Your task to perform on an android device: Open Google Maps and go to "Timeline" Image 0: 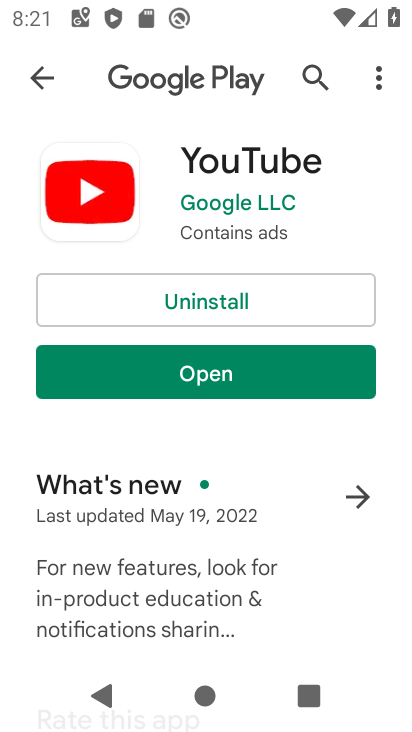
Step 0: press home button
Your task to perform on an android device: Open Google Maps and go to "Timeline" Image 1: 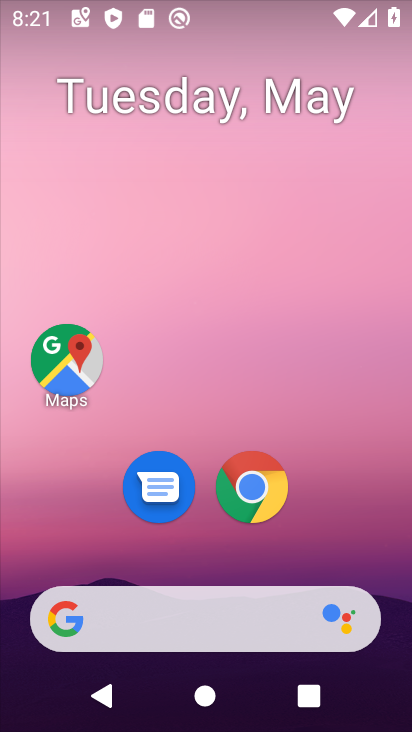
Step 1: drag from (367, 548) to (372, 219)
Your task to perform on an android device: Open Google Maps and go to "Timeline" Image 2: 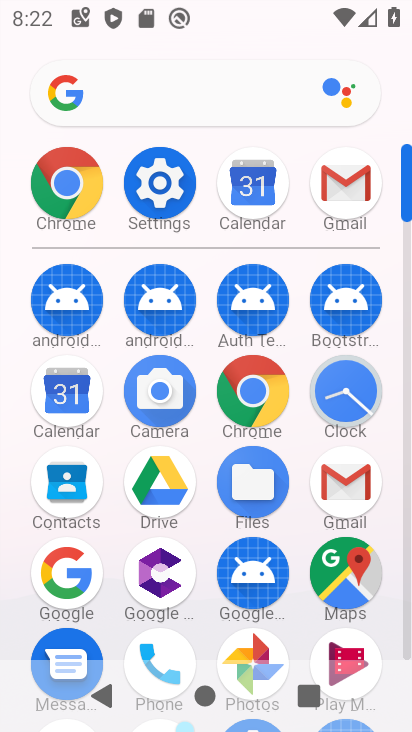
Step 2: click (267, 405)
Your task to perform on an android device: Open Google Maps and go to "Timeline" Image 3: 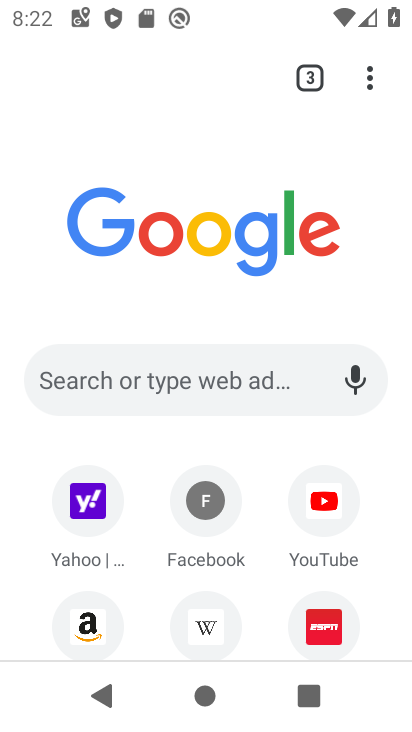
Step 3: press home button
Your task to perform on an android device: Open Google Maps and go to "Timeline" Image 4: 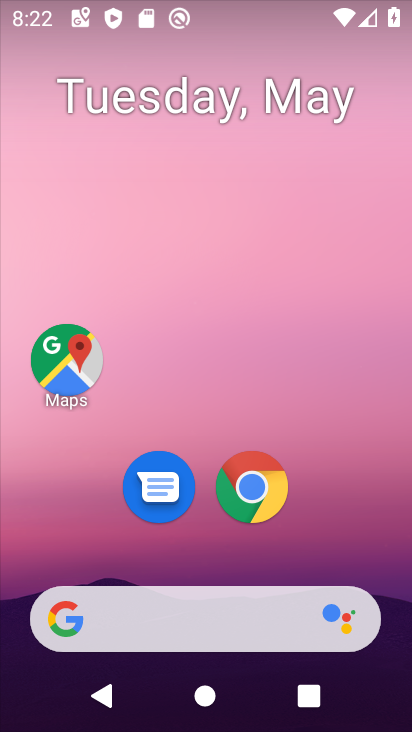
Step 4: click (56, 359)
Your task to perform on an android device: Open Google Maps and go to "Timeline" Image 5: 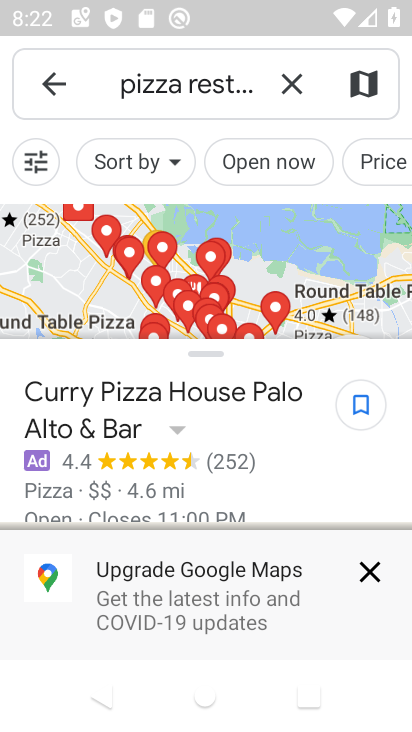
Step 5: press back button
Your task to perform on an android device: Open Google Maps and go to "Timeline" Image 6: 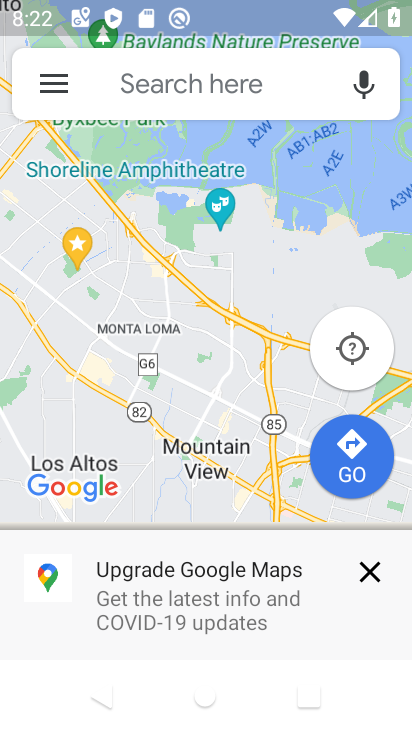
Step 6: click (60, 84)
Your task to perform on an android device: Open Google Maps and go to "Timeline" Image 7: 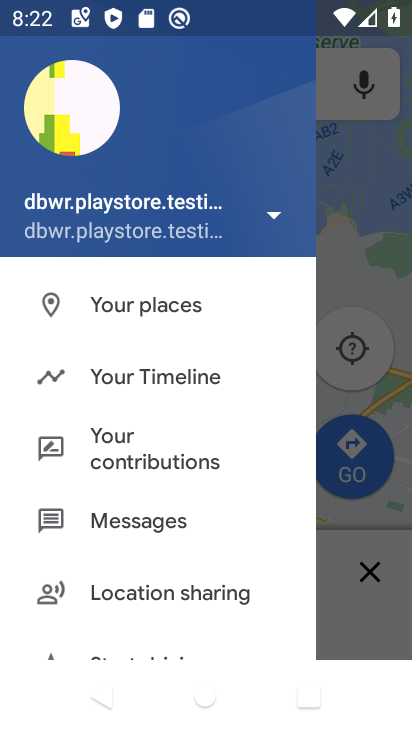
Step 7: click (182, 383)
Your task to perform on an android device: Open Google Maps and go to "Timeline" Image 8: 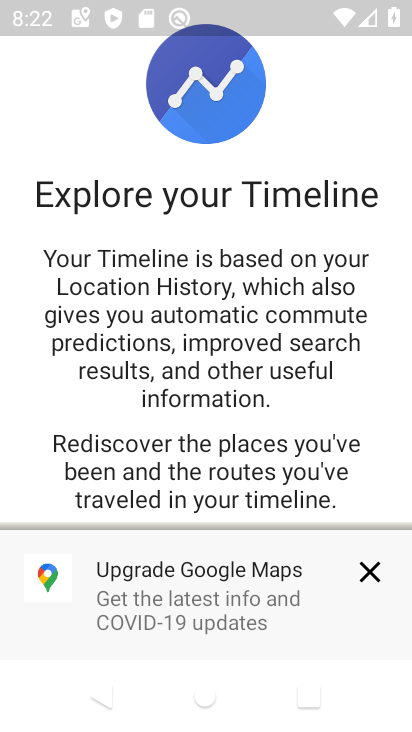
Step 8: task complete